Your task to perform on an android device: toggle location history Image 0: 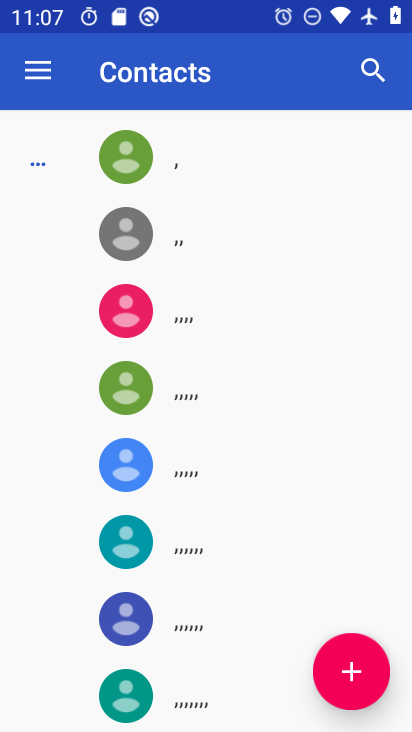
Step 0: press home button
Your task to perform on an android device: toggle location history Image 1: 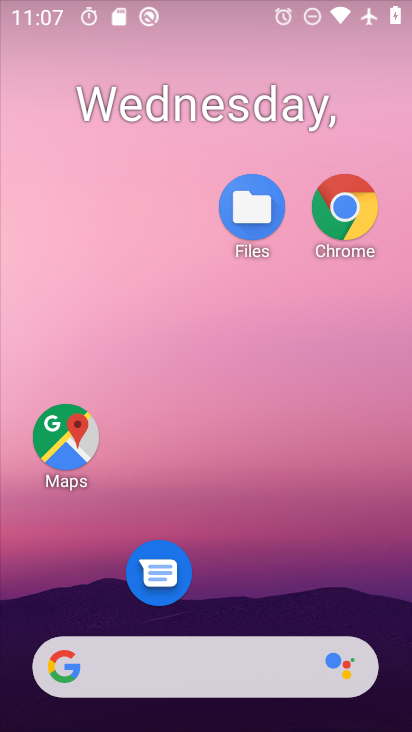
Step 1: drag from (211, 669) to (331, 281)
Your task to perform on an android device: toggle location history Image 2: 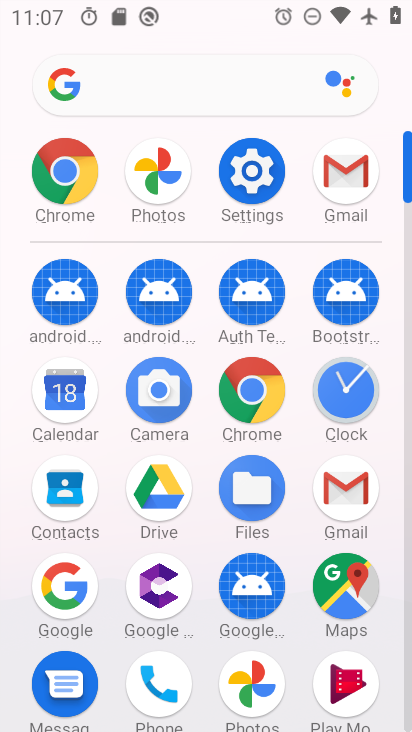
Step 2: click (243, 182)
Your task to perform on an android device: toggle location history Image 3: 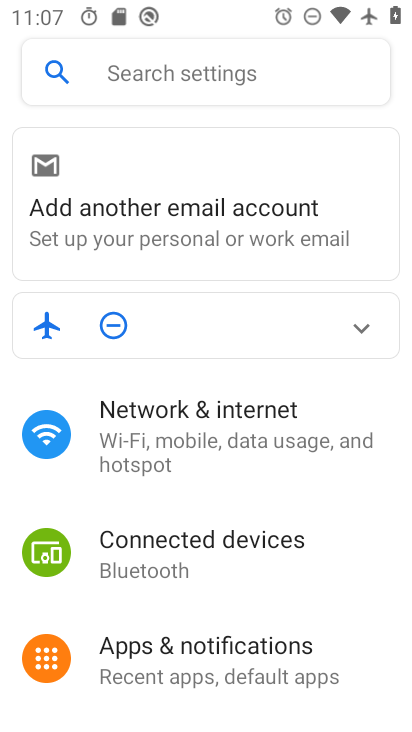
Step 3: drag from (218, 501) to (244, 254)
Your task to perform on an android device: toggle location history Image 4: 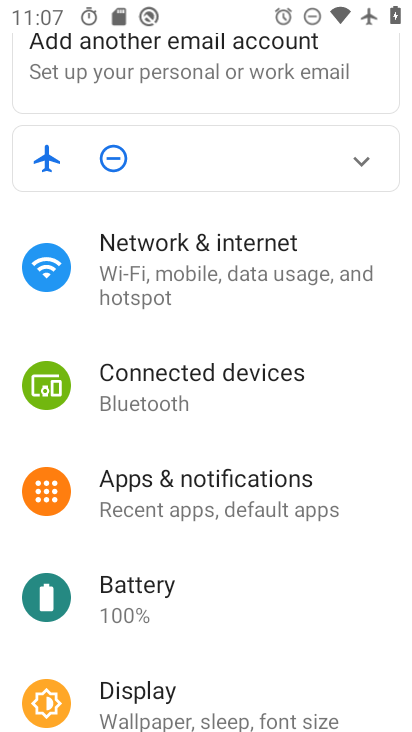
Step 4: drag from (227, 546) to (266, 295)
Your task to perform on an android device: toggle location history Image 5: 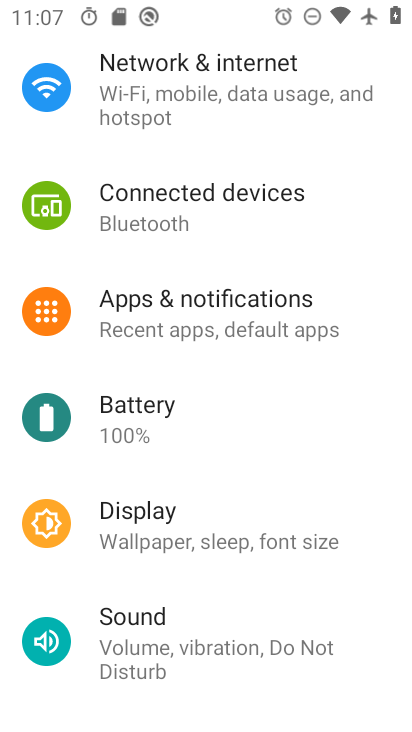
Step 5: drag from (213, 589) to (292, 249)
Your task to perform on an android device: toggle location history Image 6: 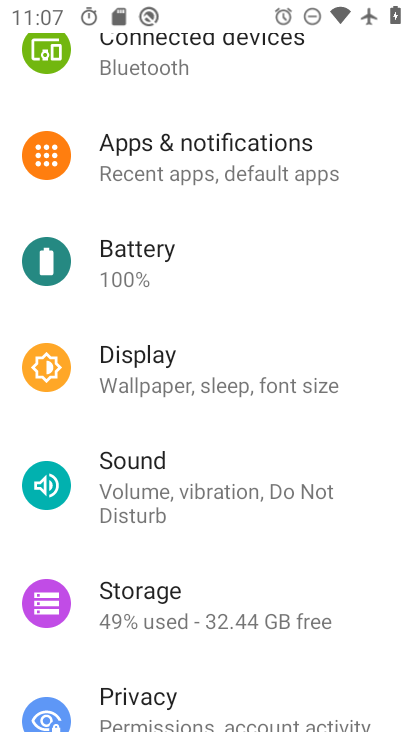
Step 6: drag from (229, 585) to (242, 294)
Your task to perform on an android device: toggle location history Image 7: 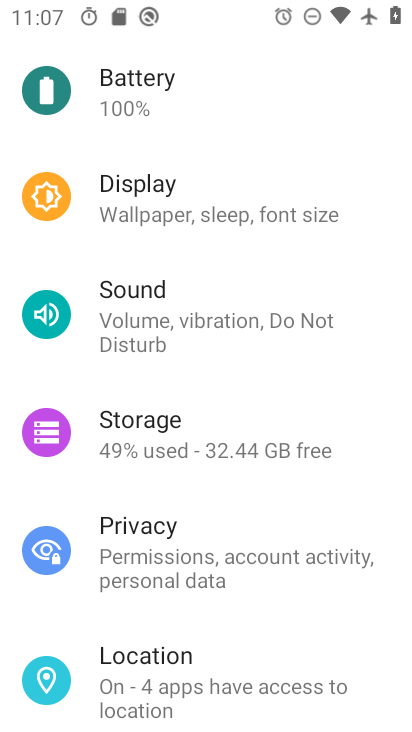
Step 7: drag from (214, 703) to (279, 392)
Your task to perform on an android device: toggle location history Image 8: 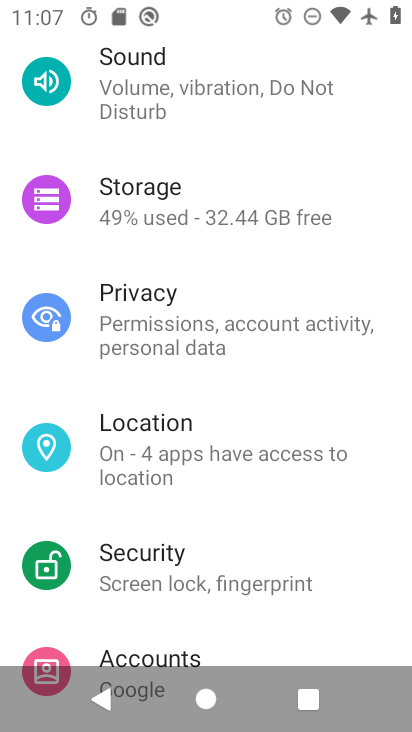
Step 8: drag from (229, 572) to (291, 358)
Your task to perform on an android device: toggle location history Image 9: 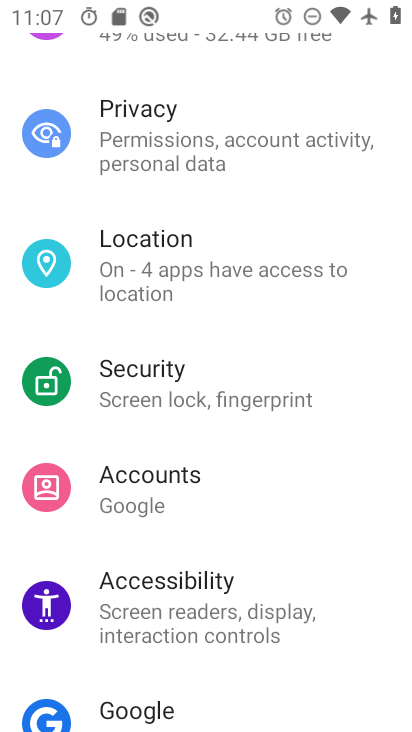
Step 9: click (226, 271)
Your task to perform on an android device: toggle location history Image 10: 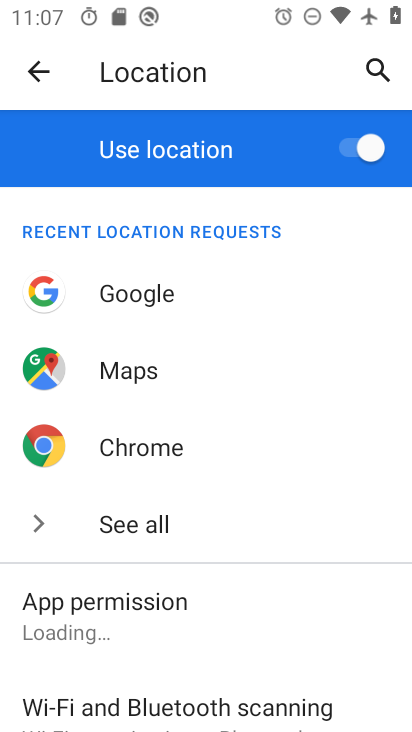
Step 10: drag from (192, 543) to (265, 295)
Your task to perform on an android device: toggle location history Image 11: 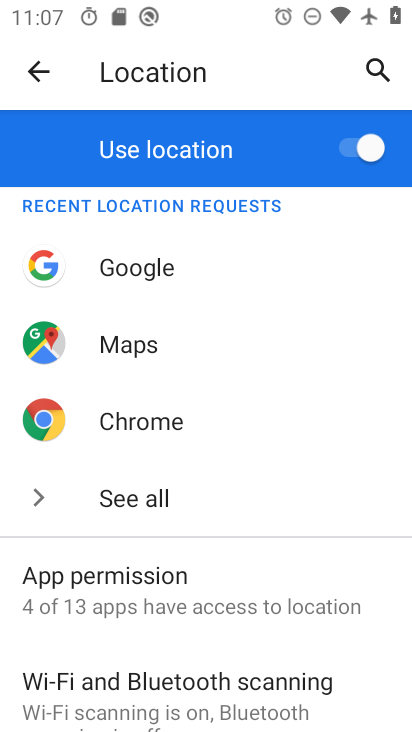
Step 11: drag from (130, 604) to (179, 308)
Your task to perform on an android device: toggle location history Image 12: 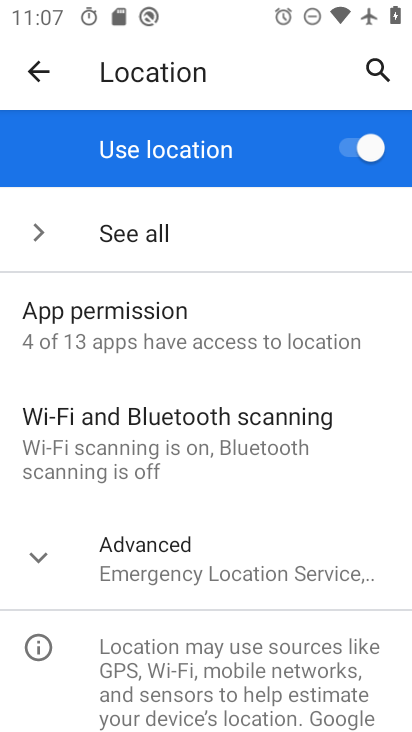
Step 12: click (156, 575)
Your task to perform on an android device: toggle location history Image 13: 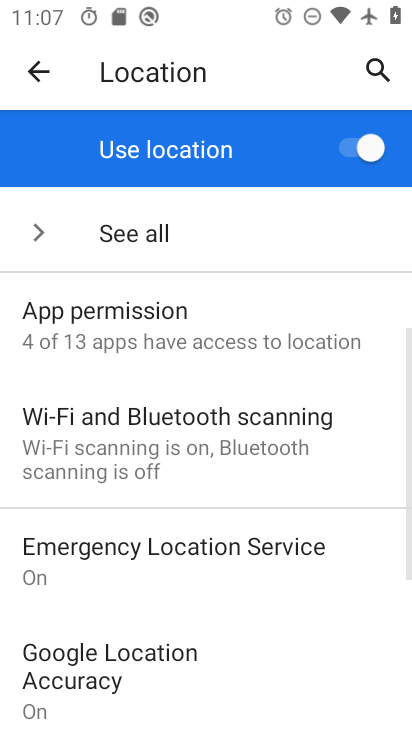
Step 13: drag from (168, 661) to (258, 338)
Your task to perform on an android device: toggle location history Image 14: 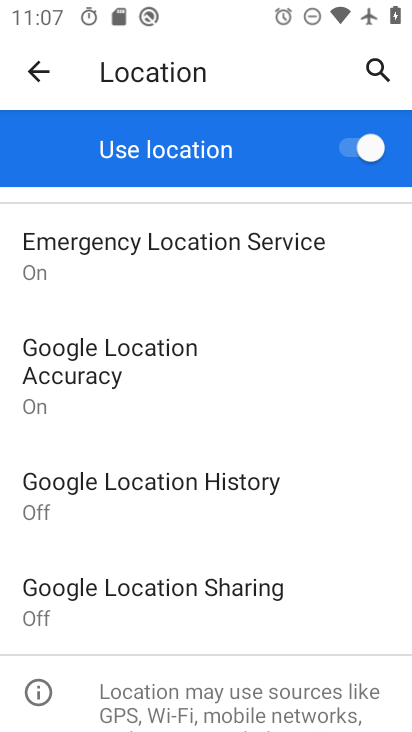
Step 14: click (229, 515)
Your task to perform on an android device: toggle location history Image 15: 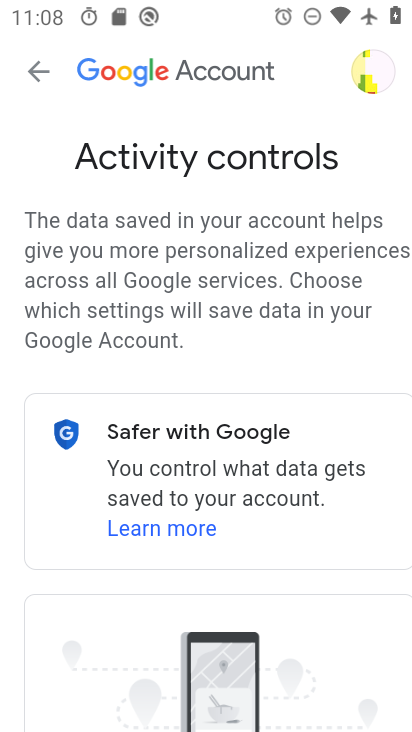
Step 15: drag from (251, 634) to (153, 424)
Your task to perform on an android device: toggle location history Image 16: 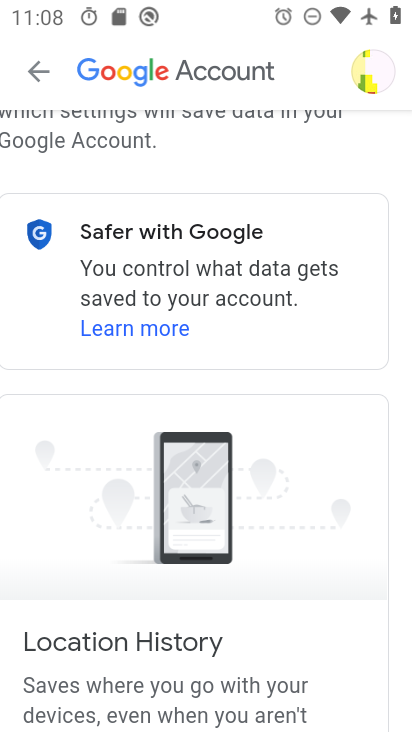
Step 16: drag from (275, 584) to (193, 367)
Your task to perform on an android device: toggle location history Image 17: 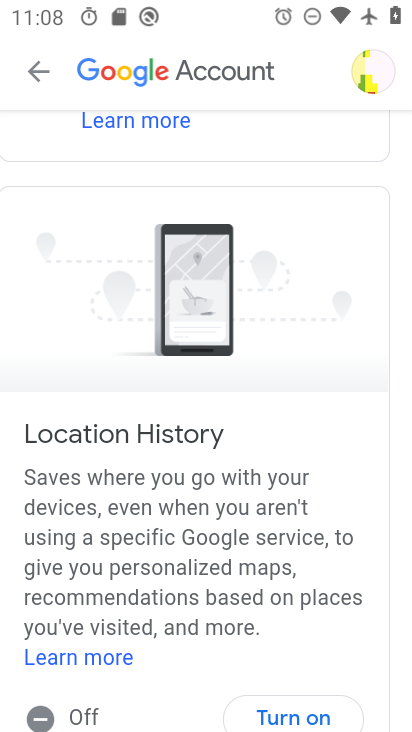
Step 17: drag from (221, 623) to (231, 403)
Your task to perform on an android device: toggle location history Image 18: 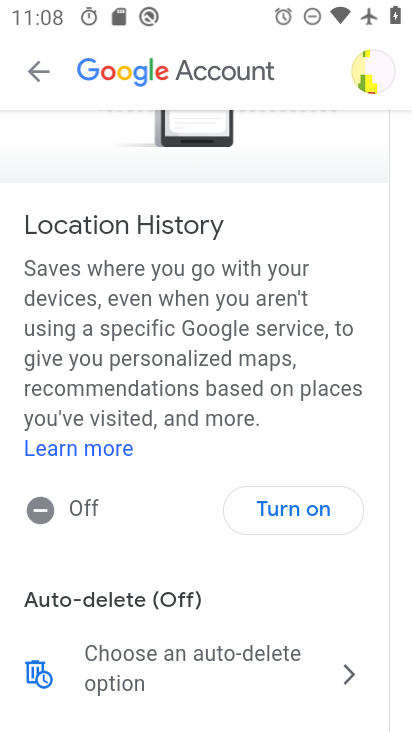
Step 18: click (301, 504)
Your task to perform on an android device: toggle location history Image 19: 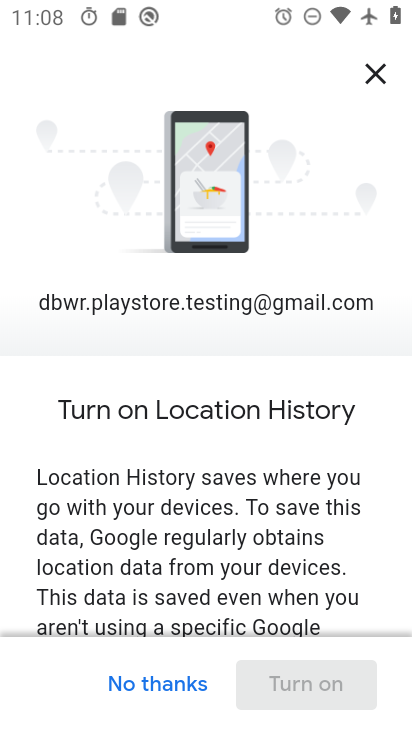
Step 19: drag from (286, 594) to (318, 173)
Your task to perform on an android device: toggle location history Image 20: 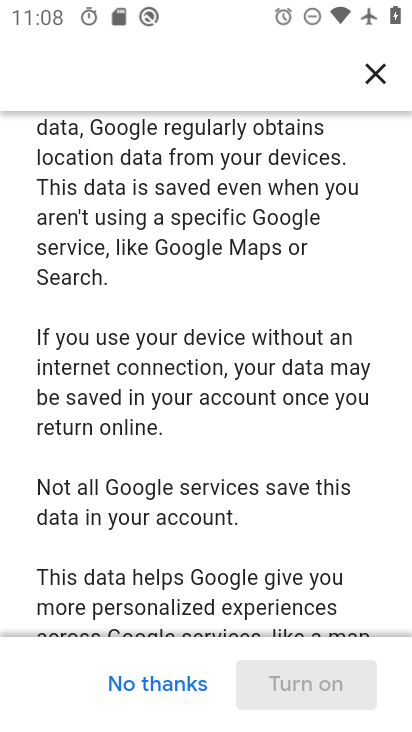
Step 20: drag from (303, 475) to (306, 244)
Your task to perform on an android device: toggle location history Image 21: 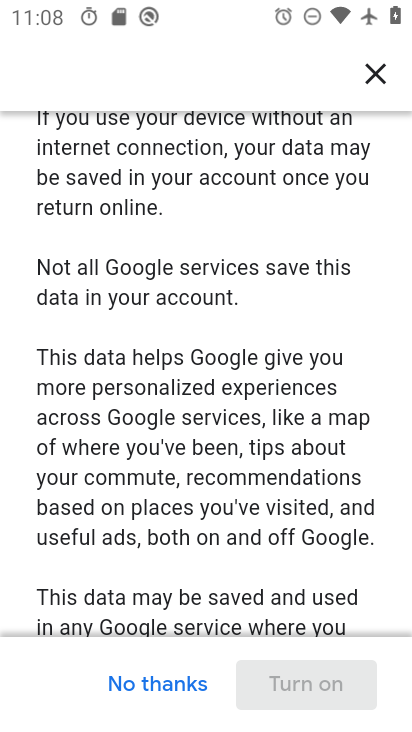
Step 21: drag from (276, 519) to (356, 108)
Your task to perform on an android device: toggle location history Image 22: 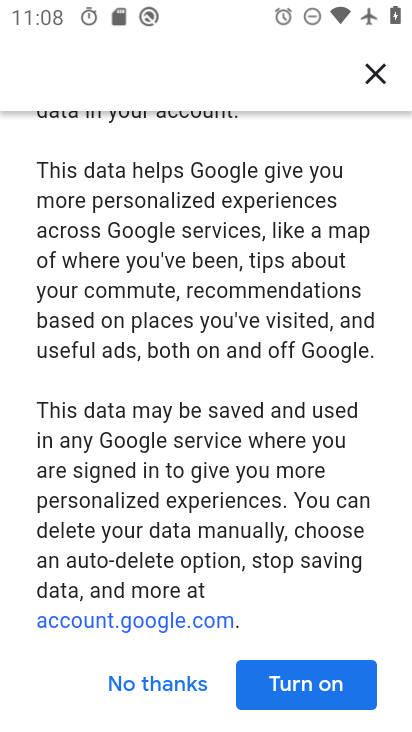
Step 22: click (315, 693)
Your task to perform on an android device: toggle location history Image 23: 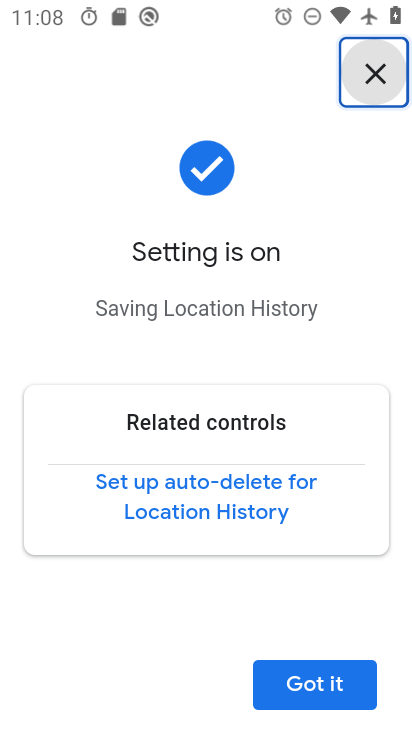
Step 23: click (314, 685)
Your task to perform on an android device: toggle location history Image 24: 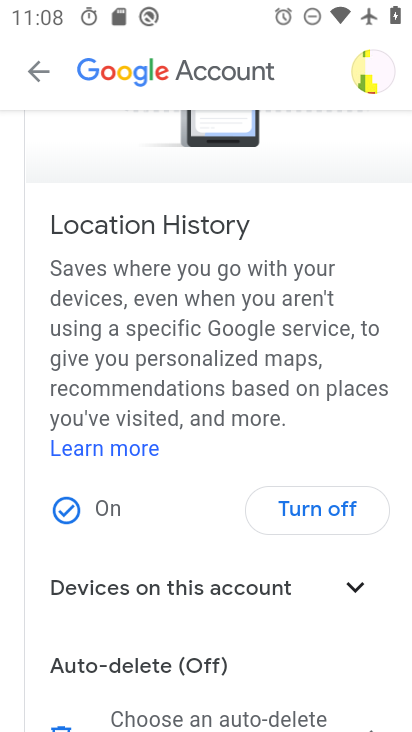
Step 24: task complete